Your task to perform on an android device: snooze an email in the gmail app Image 0: 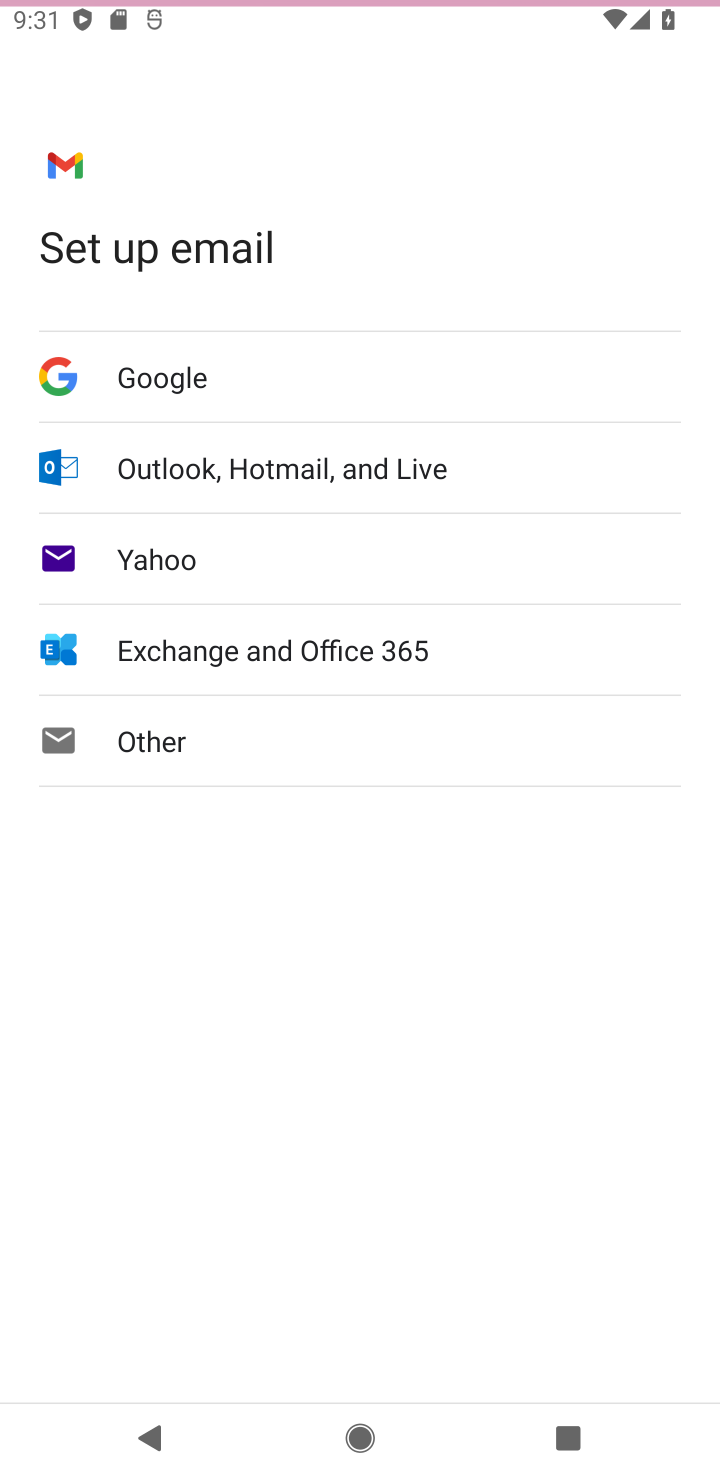
Step 0: press back button
Your task to perform on an android device: snooze an email in the gmail app Image 1: 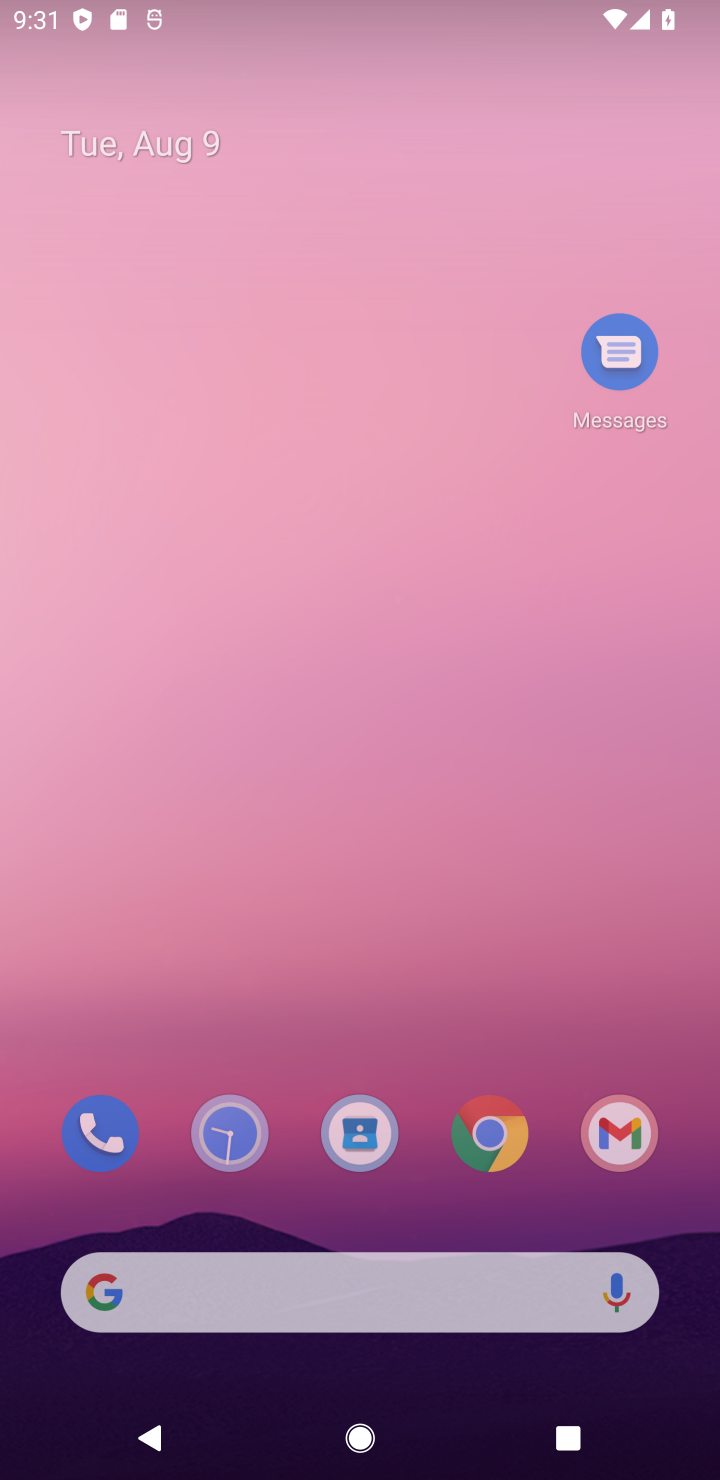
Step 1: press back button
Your task to perform on an android device: snooze an email in the gmail app Image 2: 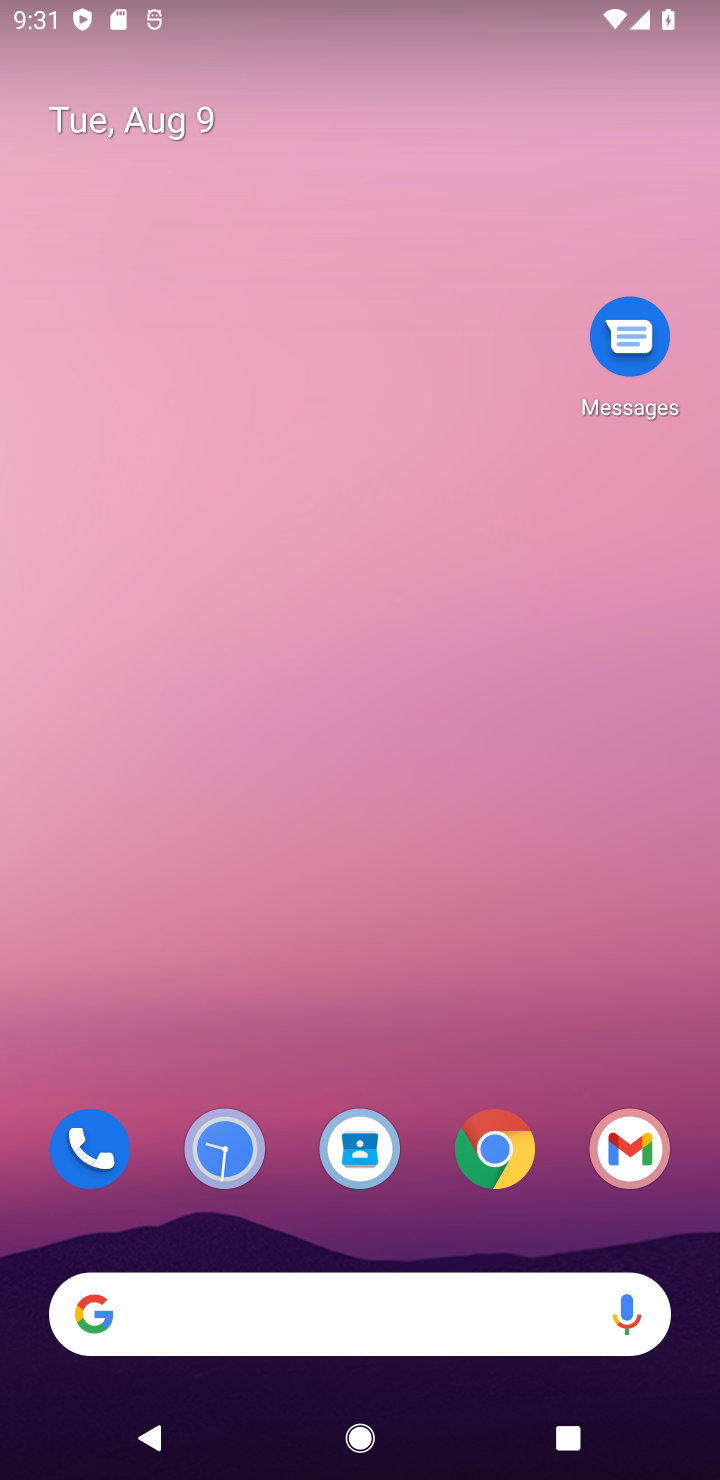
Step 2: press back button
Your task to perform on an android device: snooze an email in the gmail app Image 3: 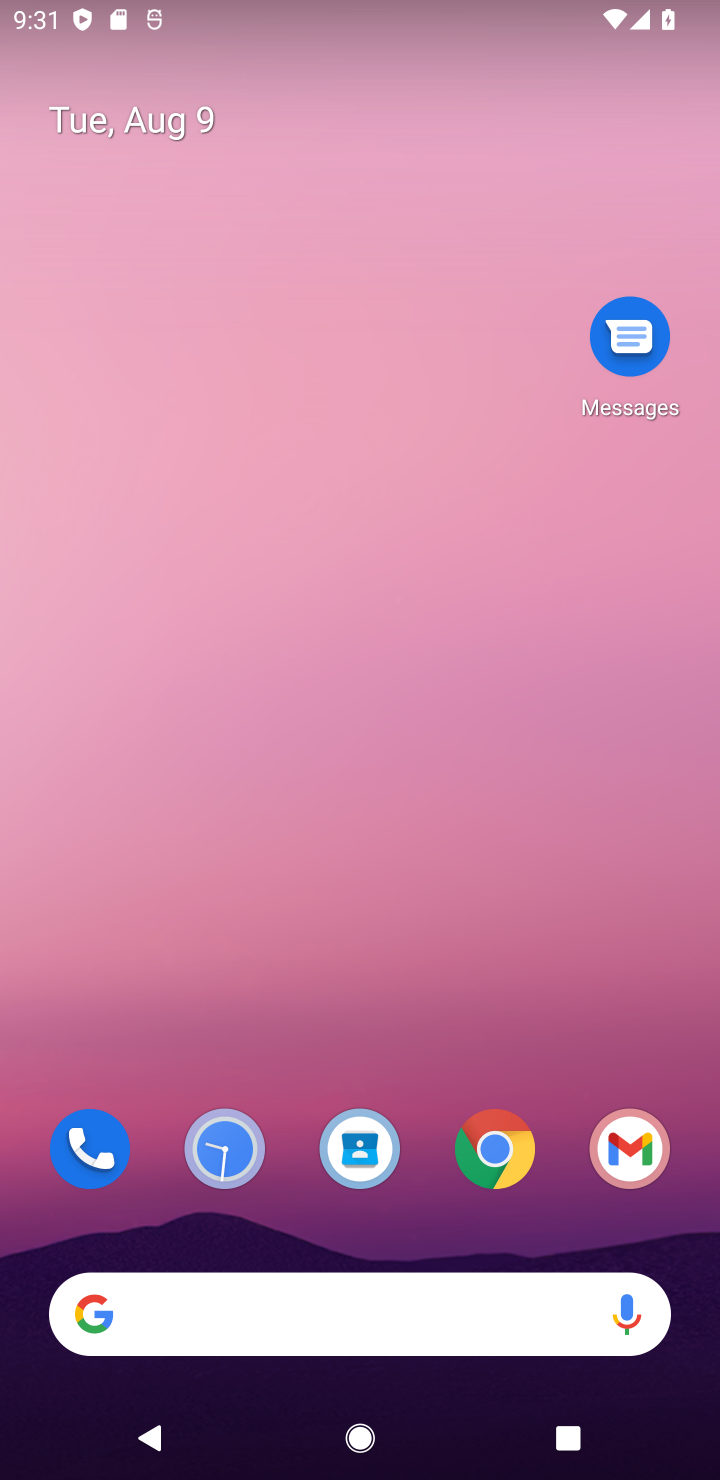
Step 3: click (653, 1163)
Your task to perform on an android device: snooze an email in the gmail app Image 4: 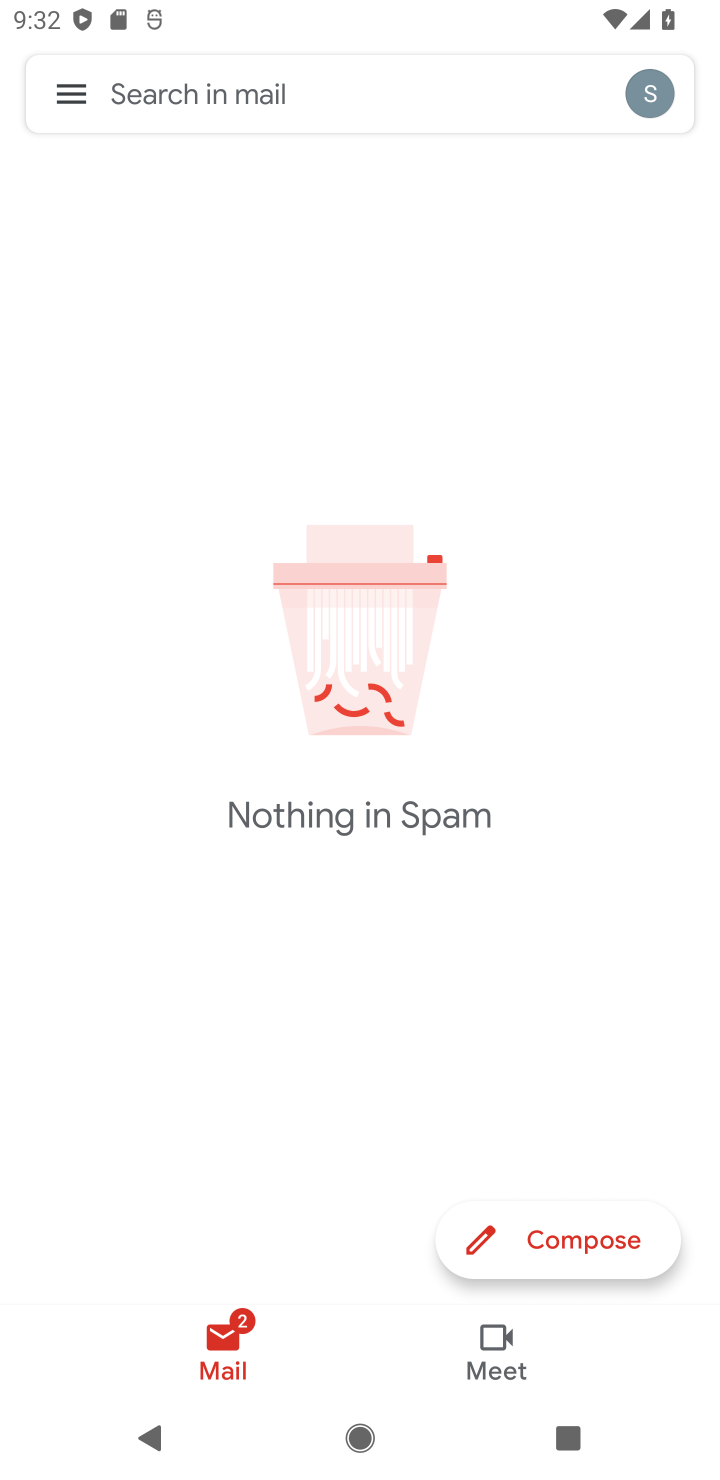
Step 4: click (88, 87)
Your task to perform on an android device: snooze an email in the gmail app Image 5: 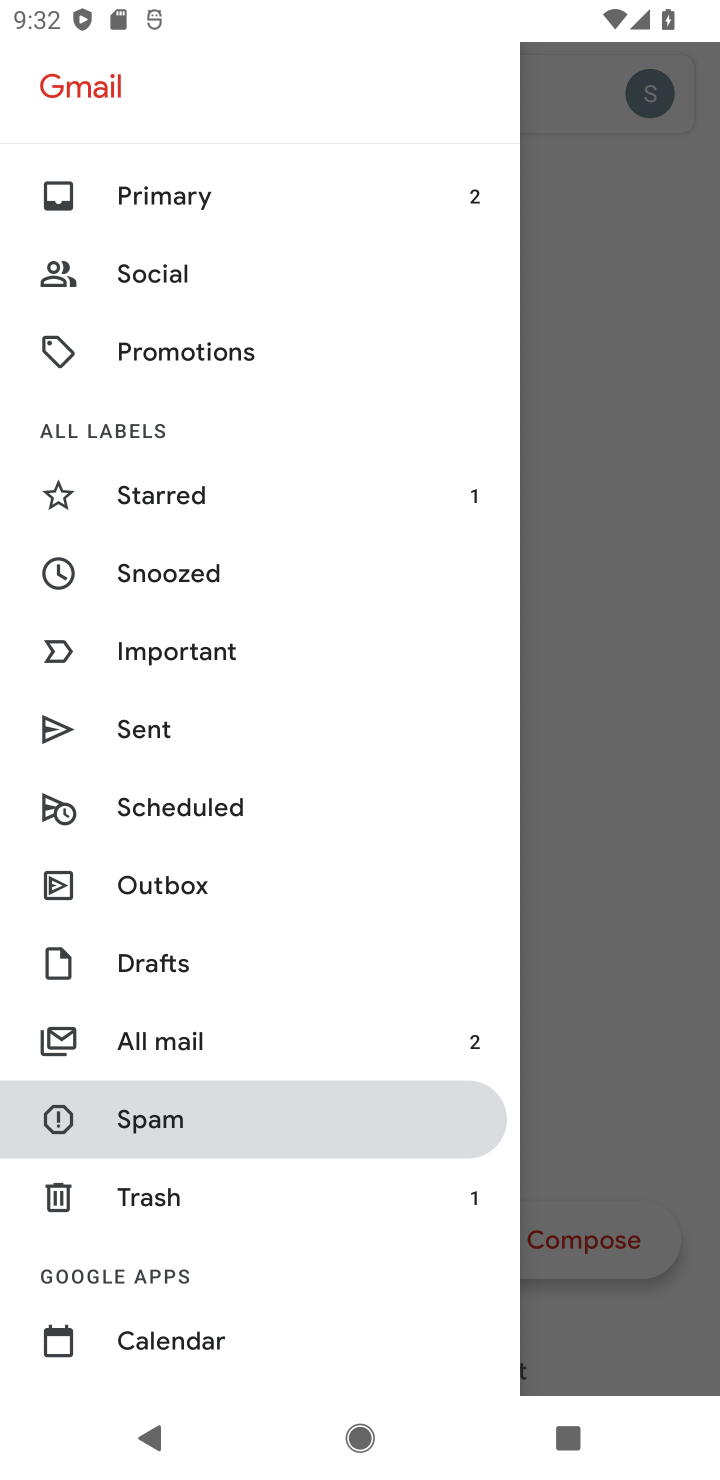
Step 5: click (211, 1030)
Your task to perform on an android device: snooze an email in the gmail app Image 6: 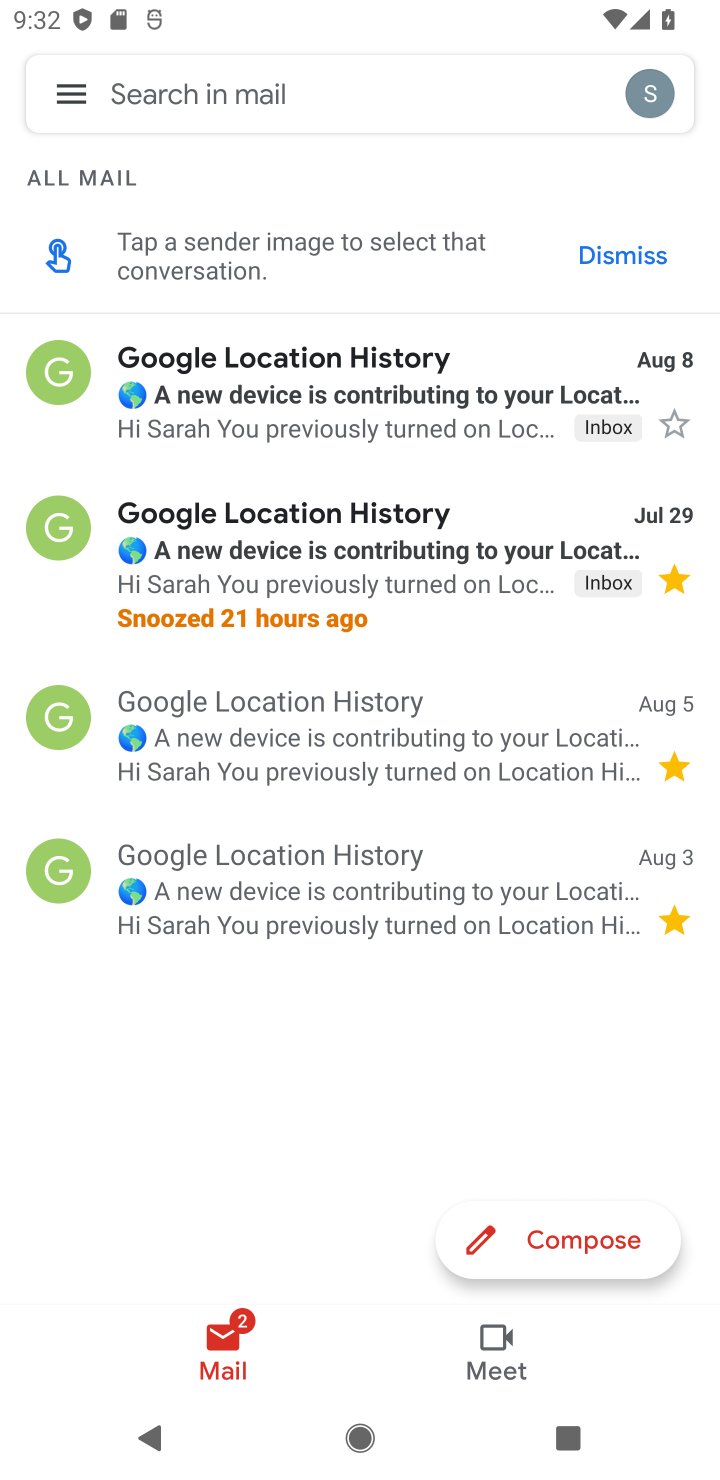
Step 6: click (344, 425)
Your task to perform on an android device: snooze an email in the gmail app Image 7: 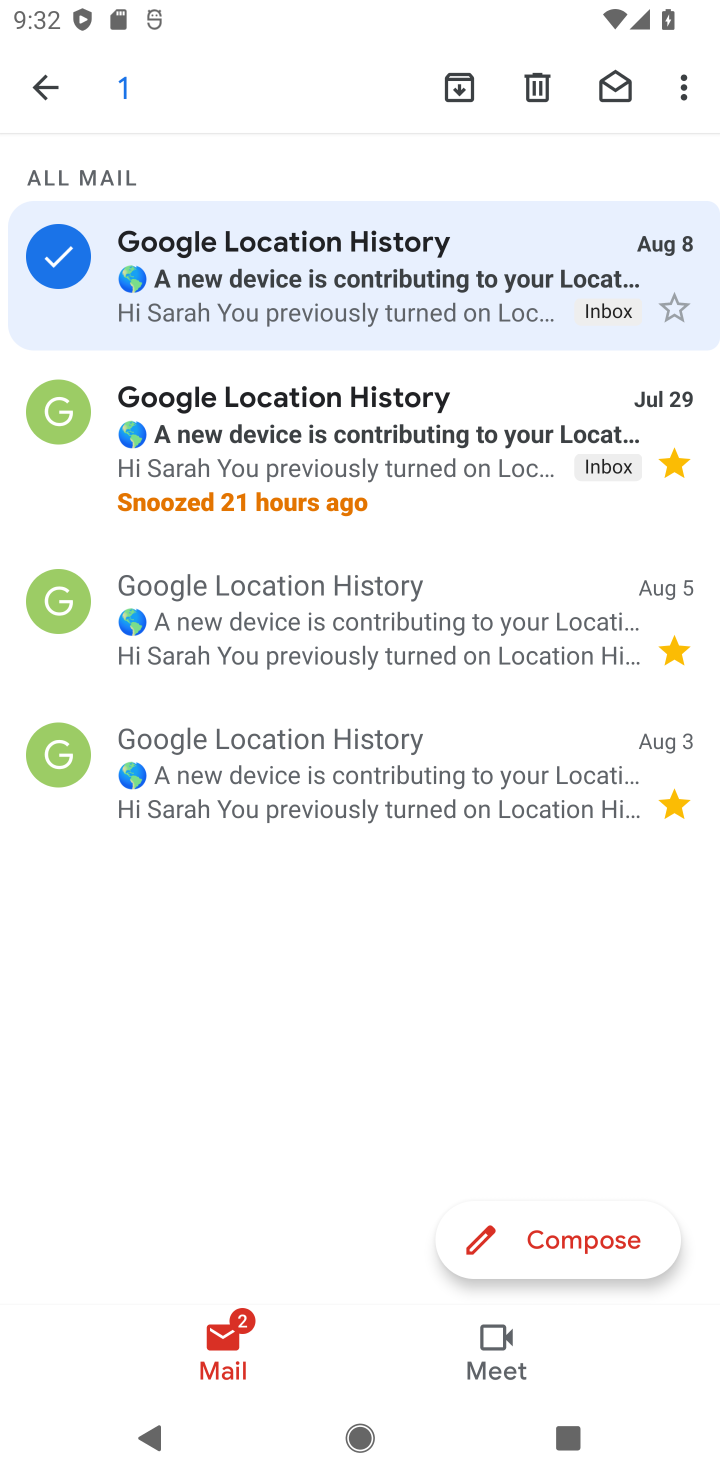
Step 7: click (667, 81)
Your task to perform on an android device: snooze an email in the gmail app Image 8: 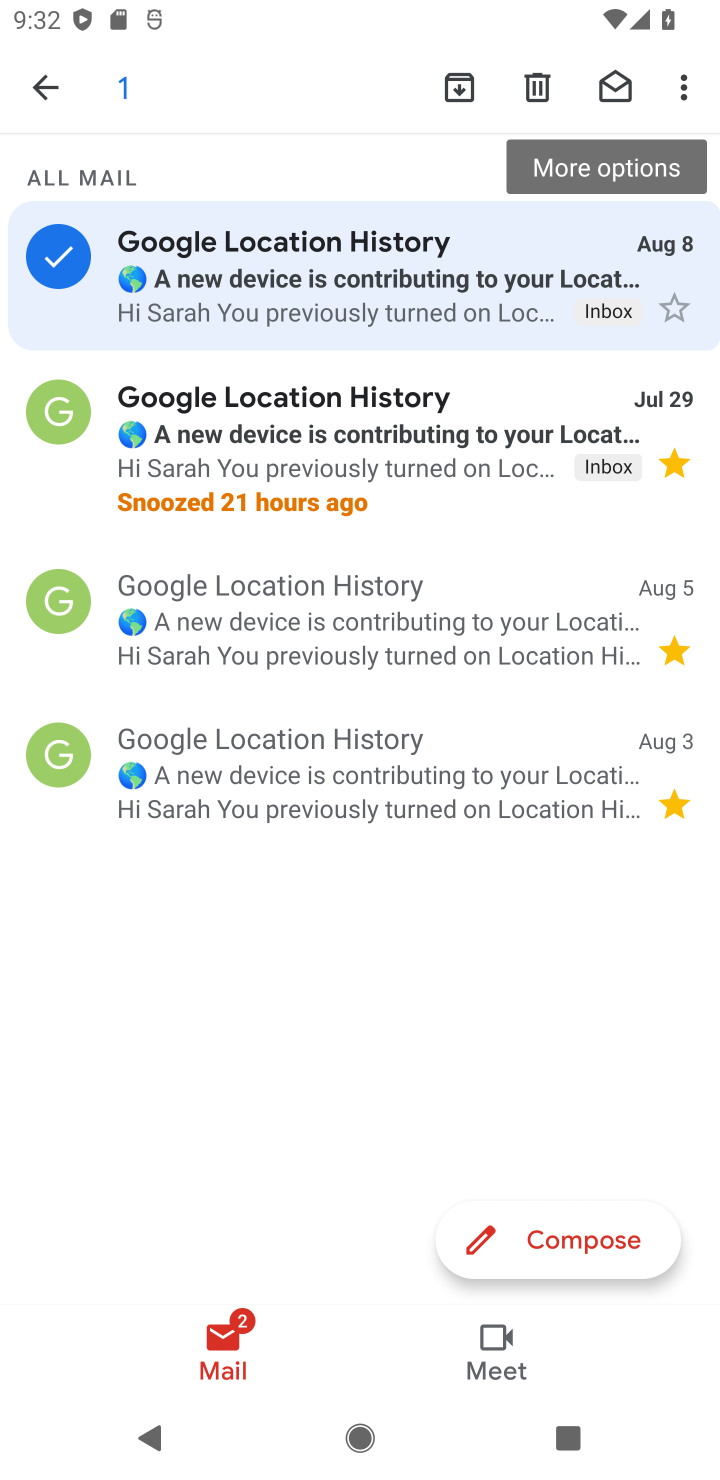
Step 8: click (685, 83)
Your task to perform on an android device: snooze an email in the gmail app Image 9: 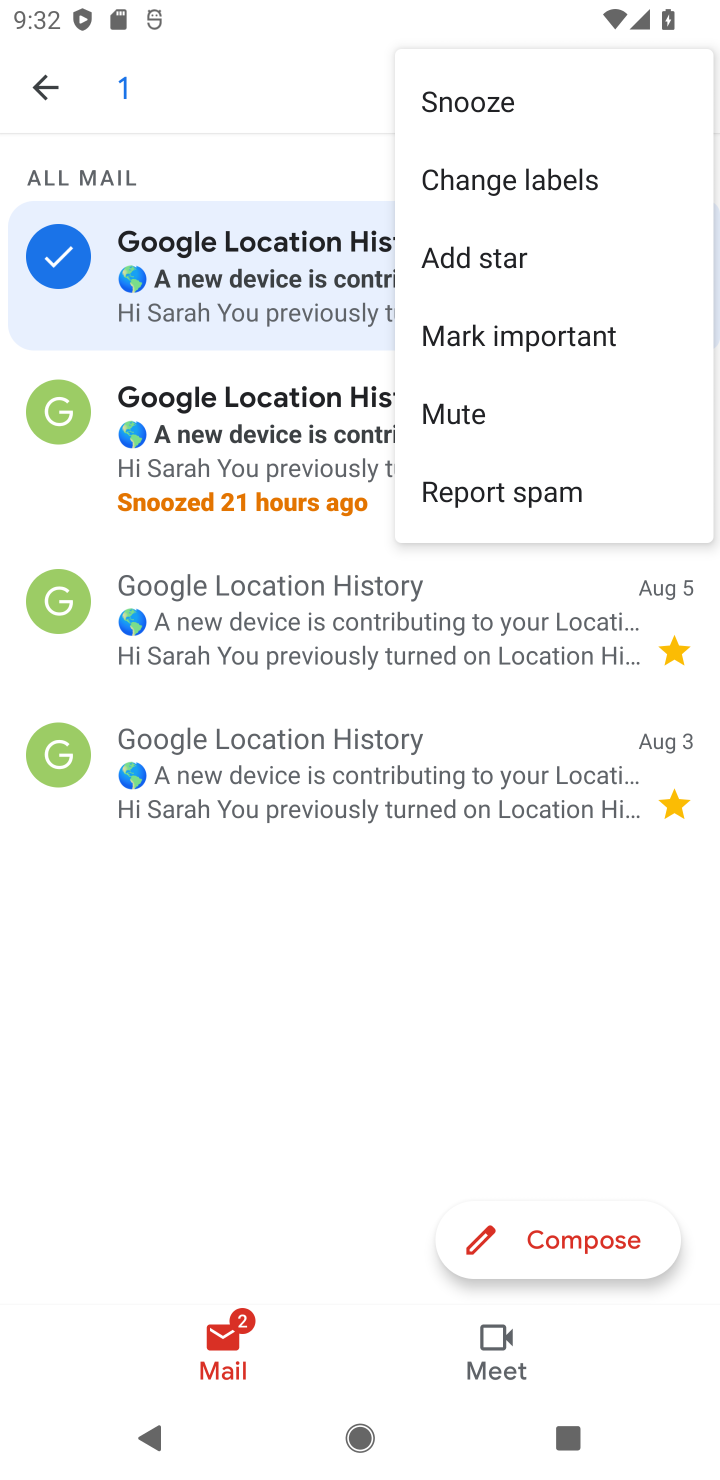
Step 9: click (409, 66)
Your task to perform on an android device: snooze an email in the gmail app Image 10: 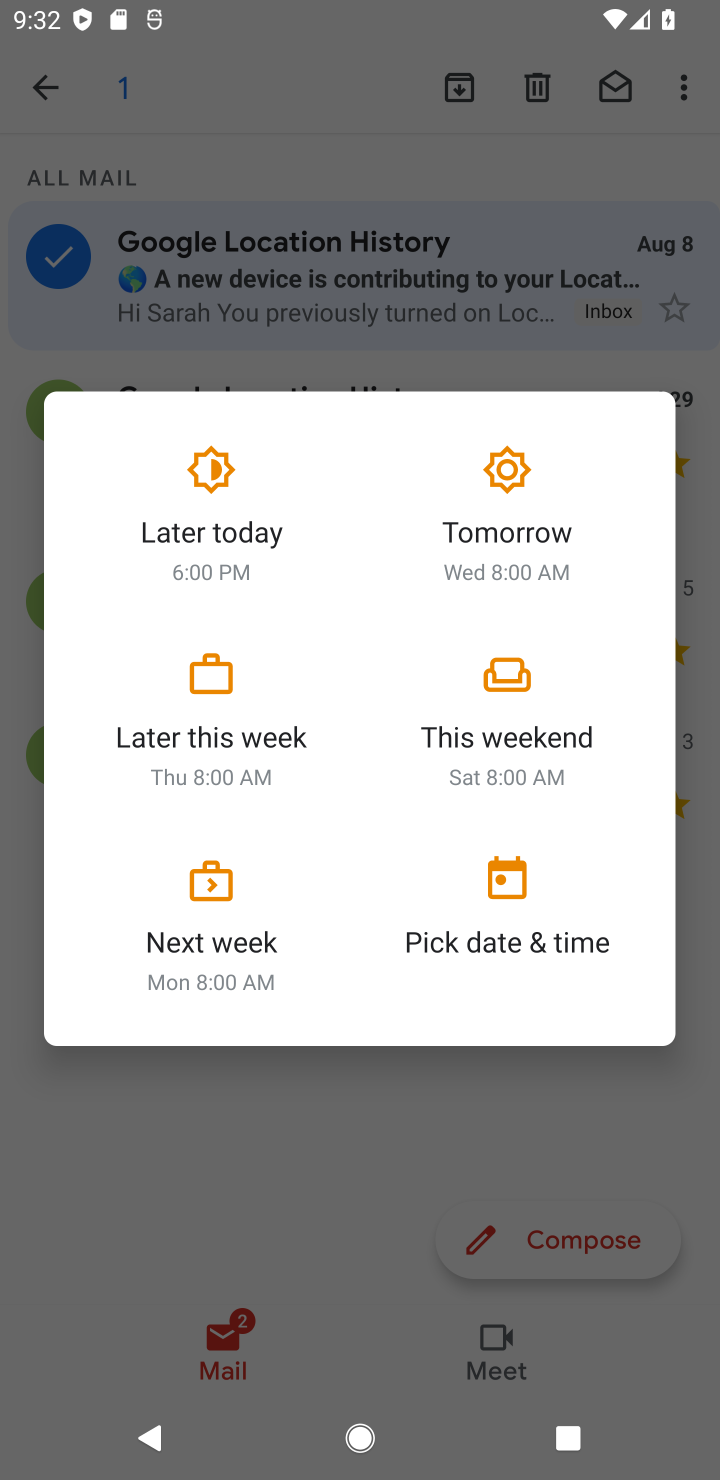
Step 10: click (434, 93)
Your task to perform on an android device: snooze an email in the gmail app Image 11: 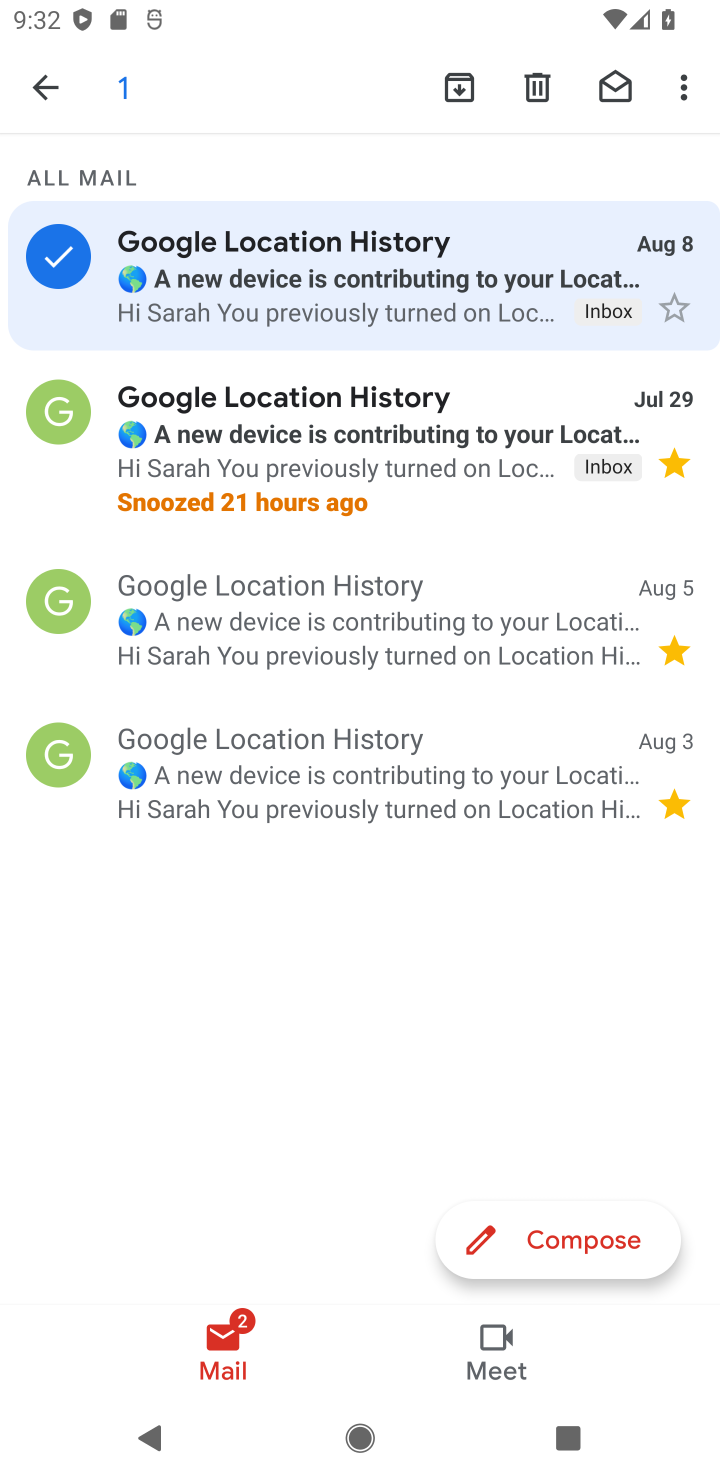
Step 11: click (481, 464)
Your task to perform on an android device: snooze an email in the gmail app Image 12: 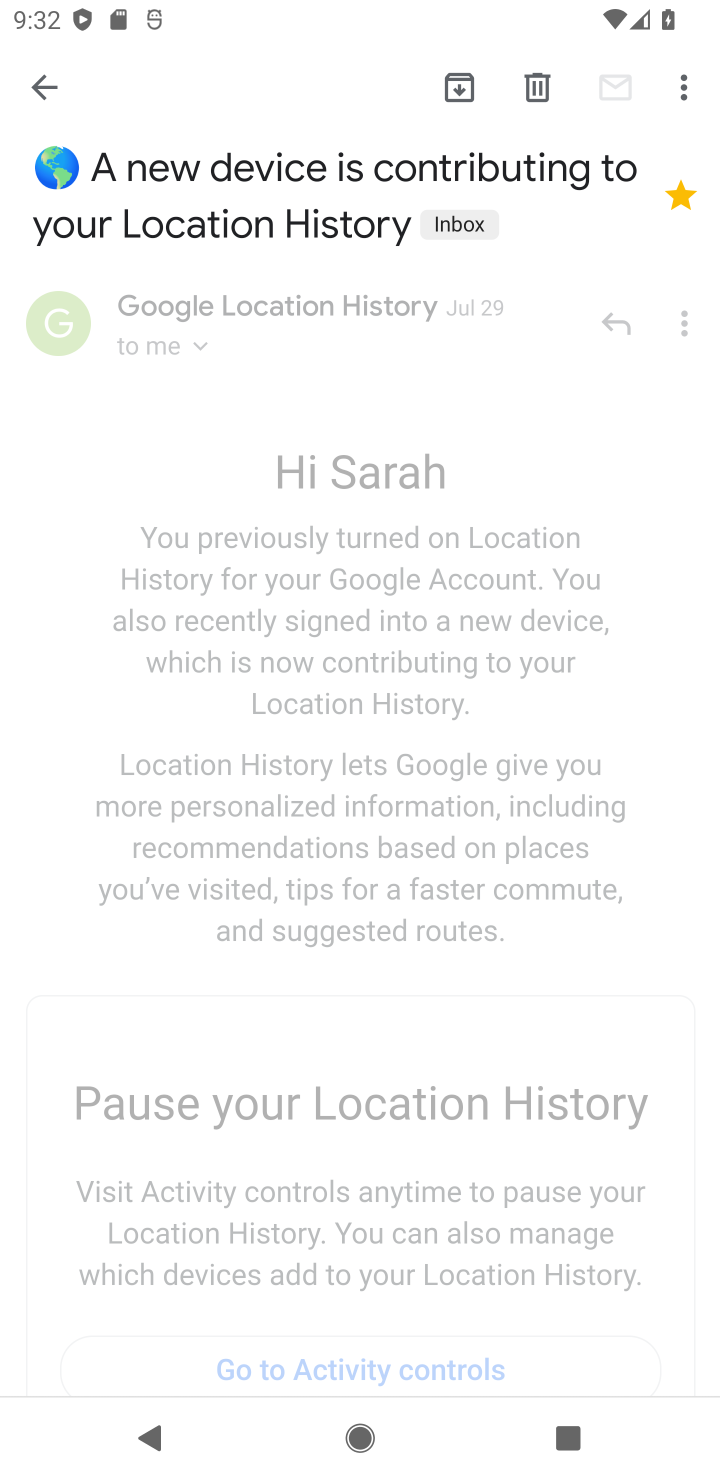
Step 12: click (44, 69)
Your task to perform on an android device: snooze an email in the gmail app Image 13: 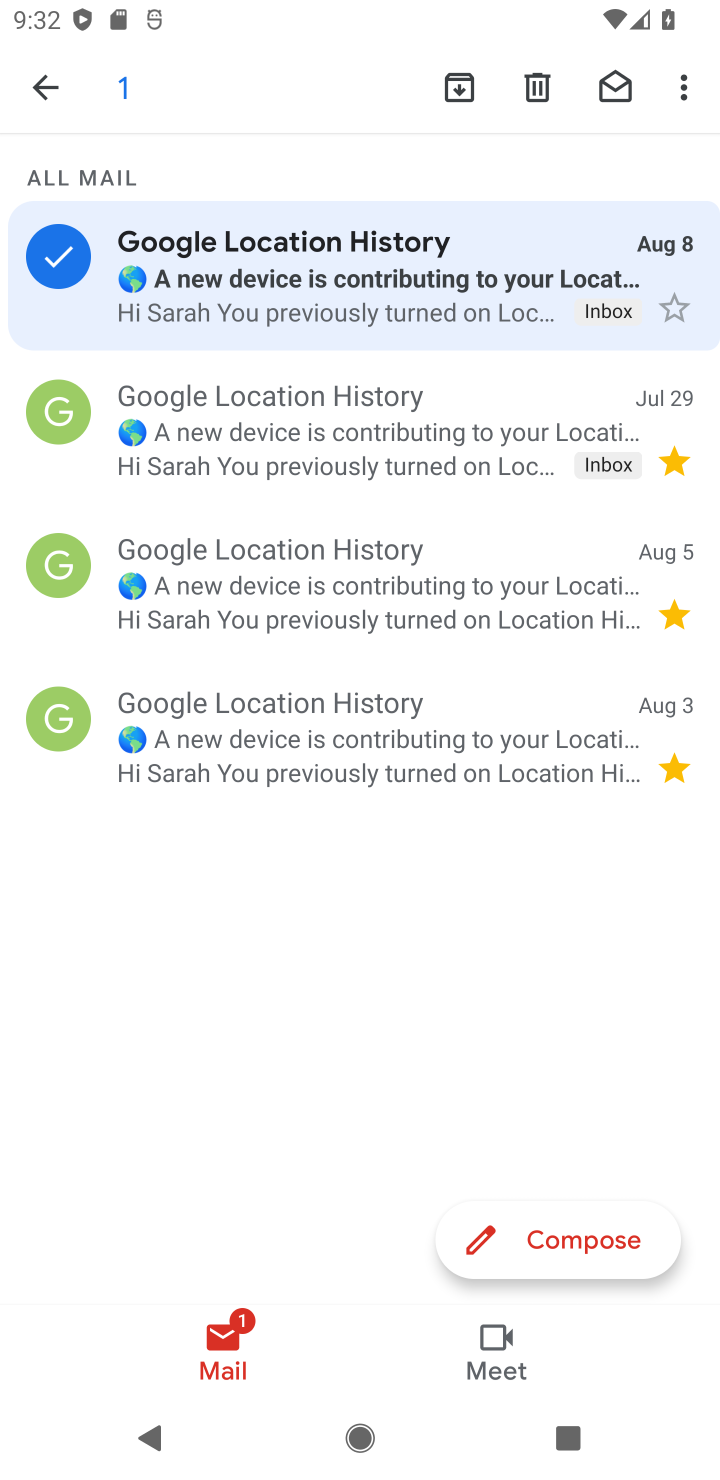
Step 13: click (696, 63)
Your task to perform on an android device: snooze an email in the gmail app Image 14: 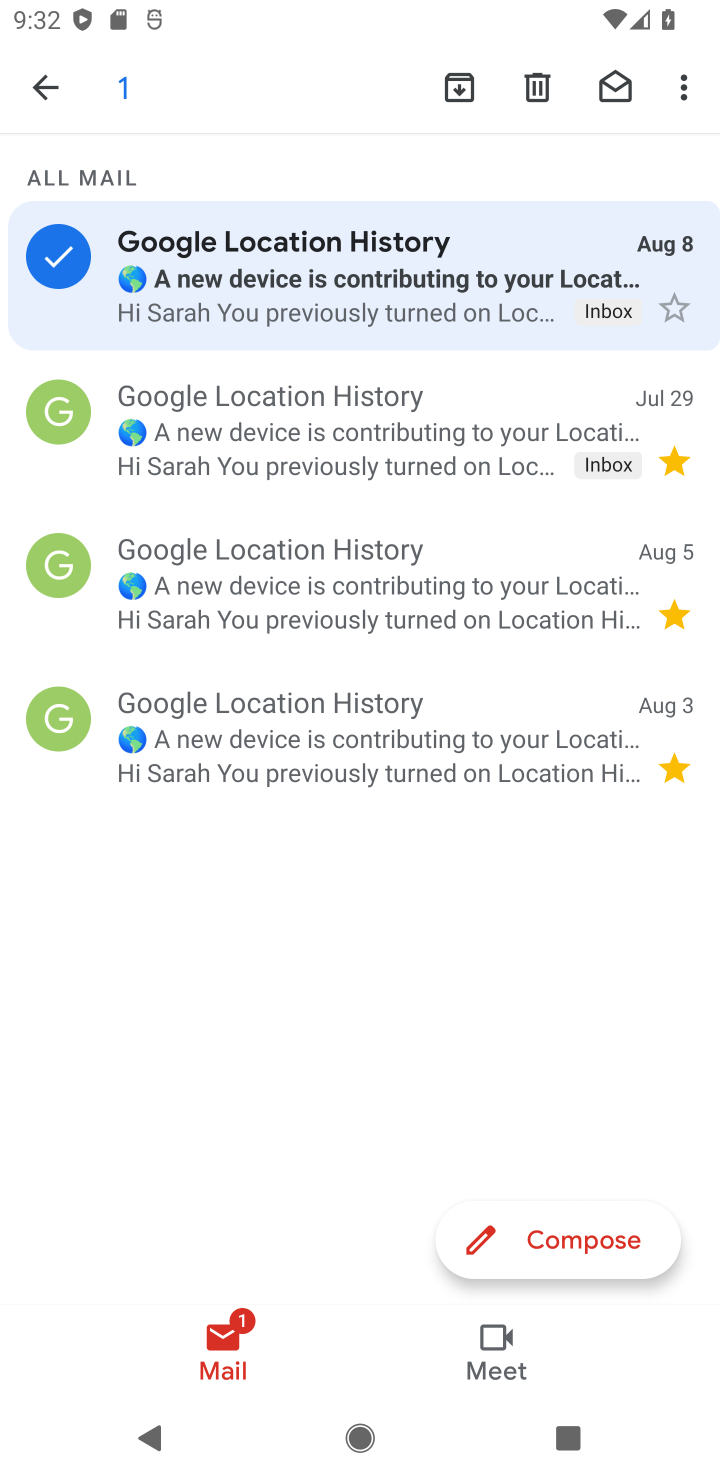
Step 14: click (681, 103)
Your task to perform on an android device: snooze an email in the gmail app Image 15: 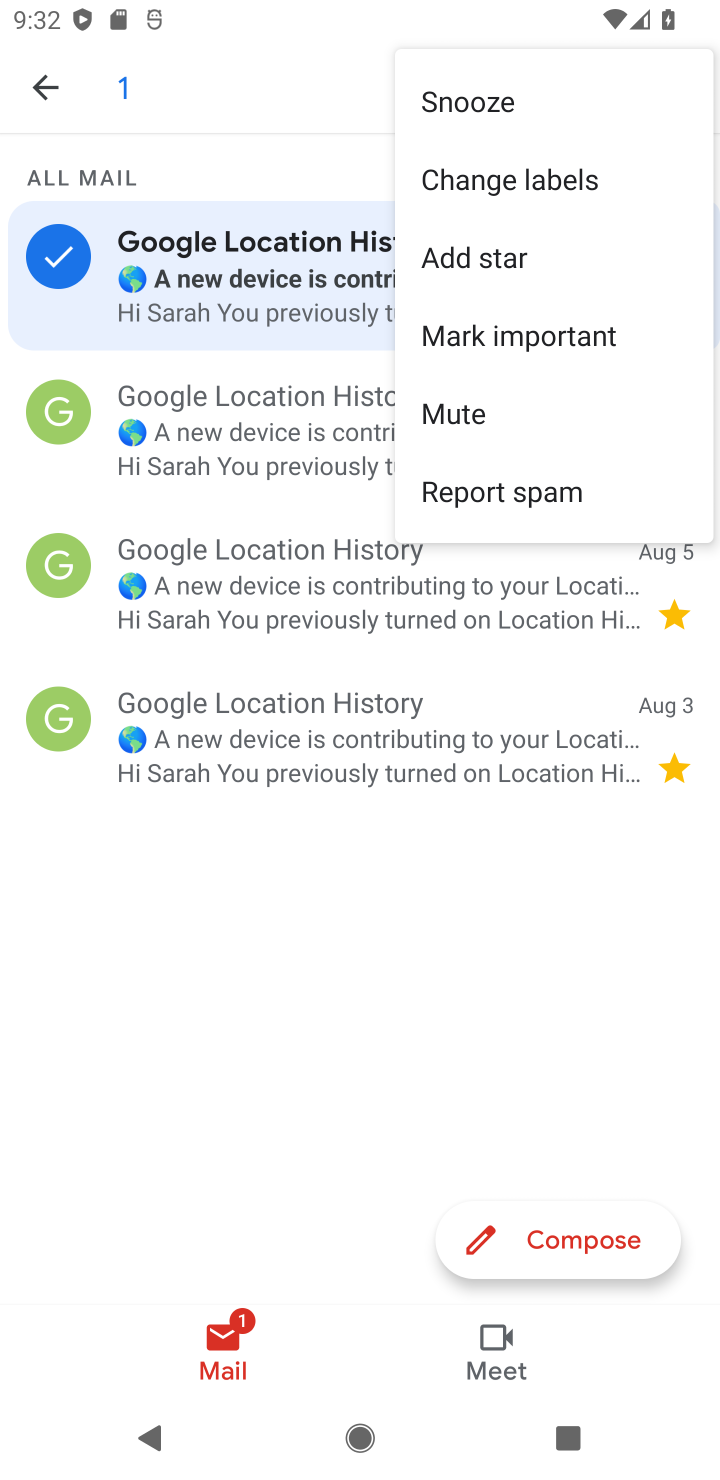
Step 15: click (454, 89)
Your task to perform on an android device: snooze an email in the gmail app Image 16: 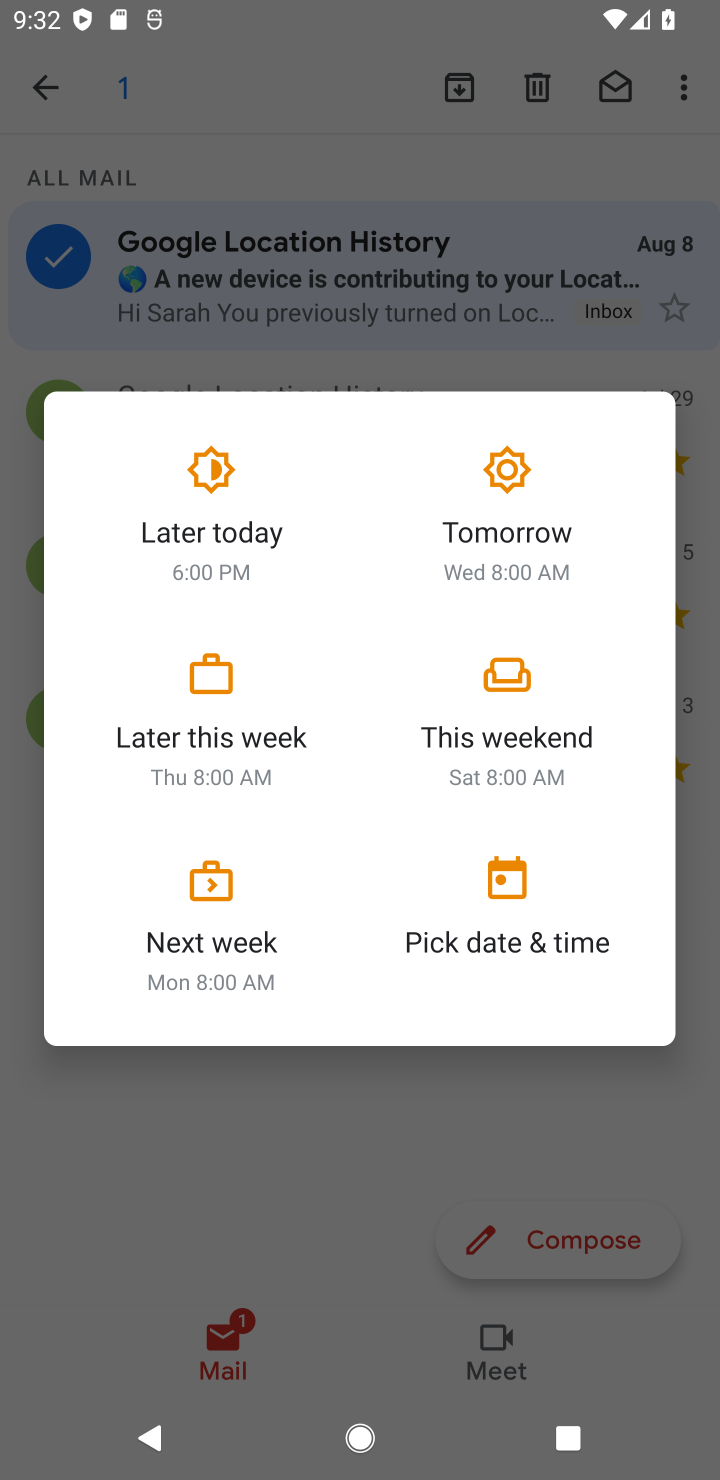
Step 16: click (489, 498)
Your task to perform on an android device: snooze an email in the gmail app Image 17: 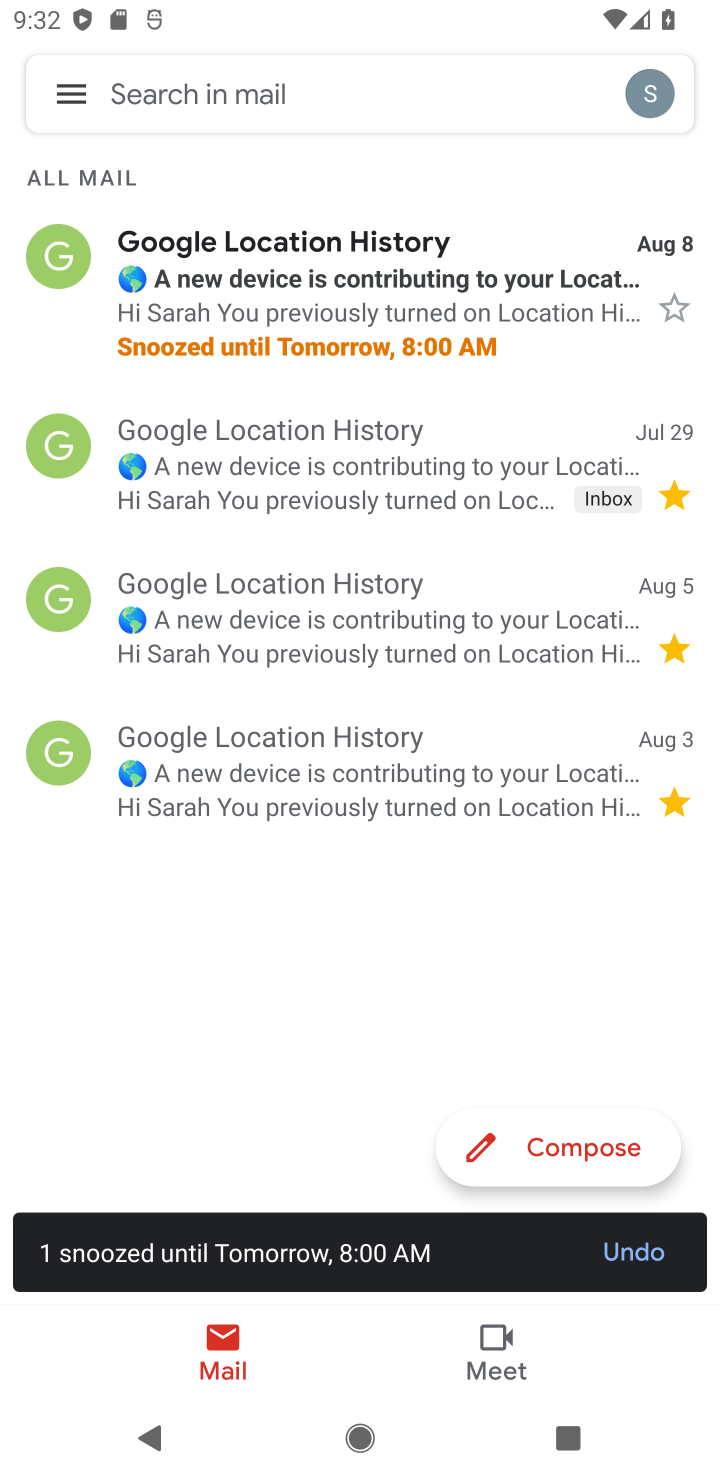
Step 17: task complete